Your task to perform on an android device: toggle improve location accuracy Image 0: 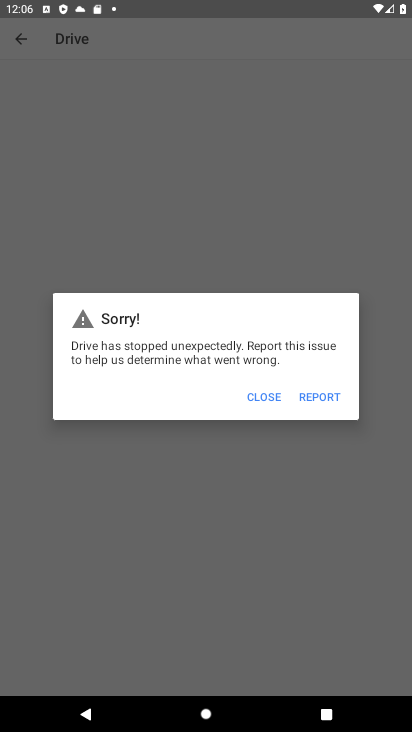
Step 0: press home button
Your task to perform on an android device: toggle improve location accuracy Image 1: 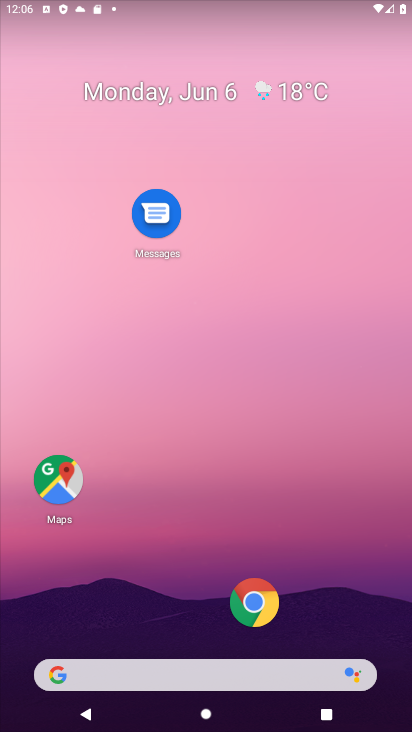
Step 1: drag from (357, 615) to (258, 176)
Your task to perform on an android device: toggle improve location accuracy Image 2: 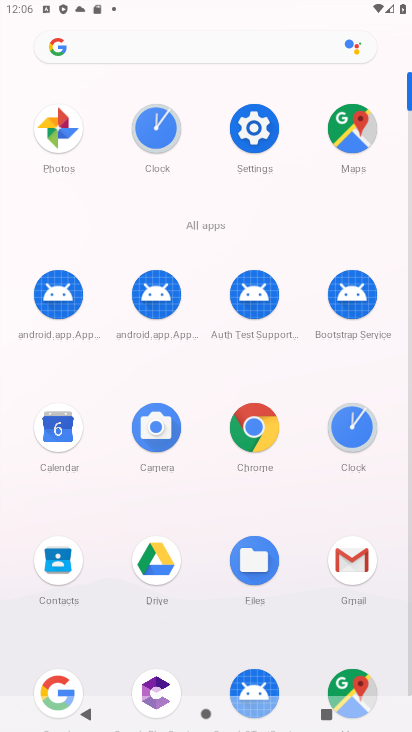
Step 2: click (251, 124)
Your task to perform on an android device: toggle improve location accuracy Image 3: 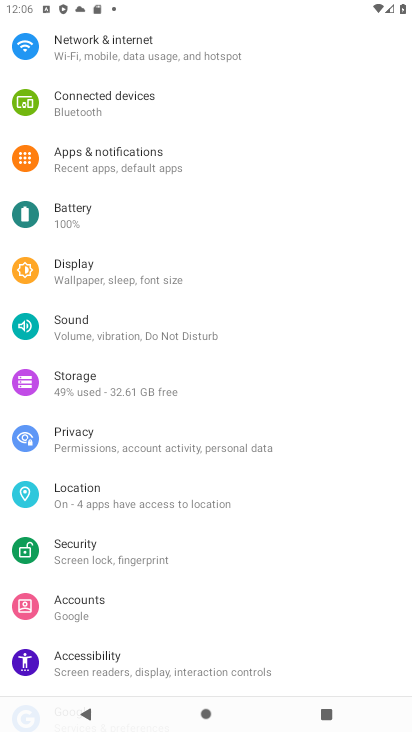
Step 3: click (154, 494)
Your task to perform on an android device: toggle improve location accuracy Image 4: 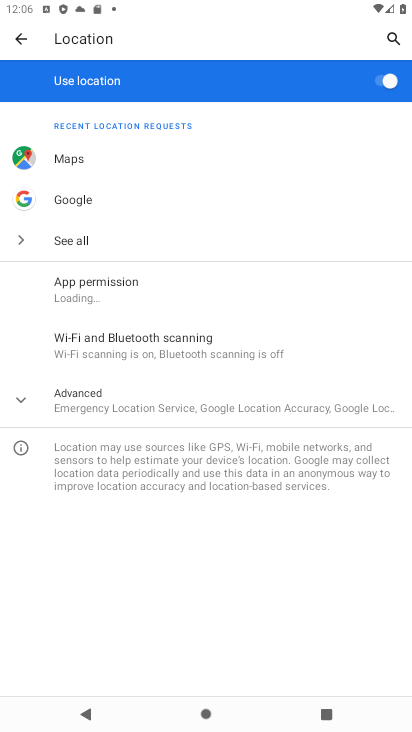
Step 4: task complete